Your task to perform on an android device: check the backup settings in the google photos Image 0: 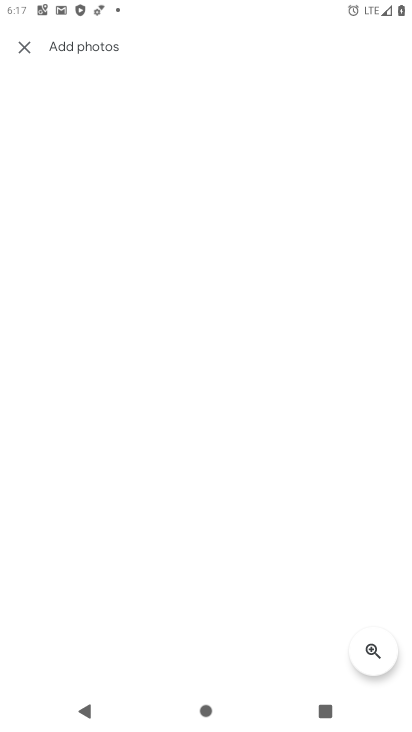
Step 0: press home button
Your task to perform on an android device: check the backup settings in the google photos Image 1: 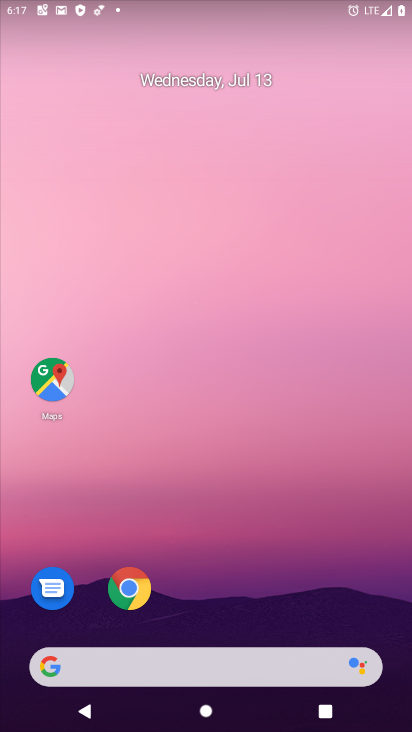
Step 1: drag from (214, 597) to (244, 92)
Your task to perform on an android device: check the backup settings in the google photos Image 2: 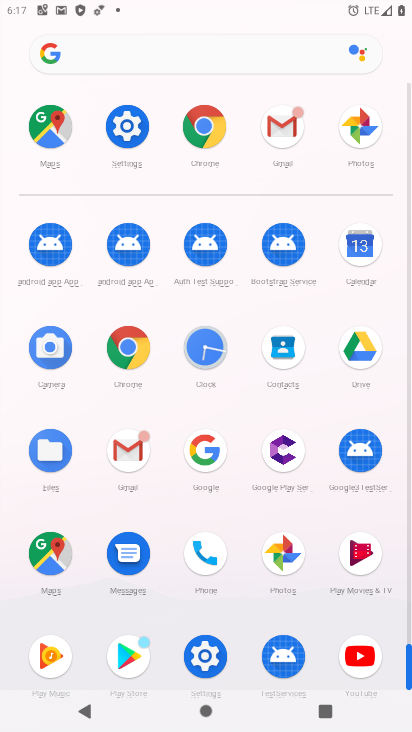
Step 2: click (352, 124)
Your task to perform on an android device: check the backup settings in the google photos Image 3: 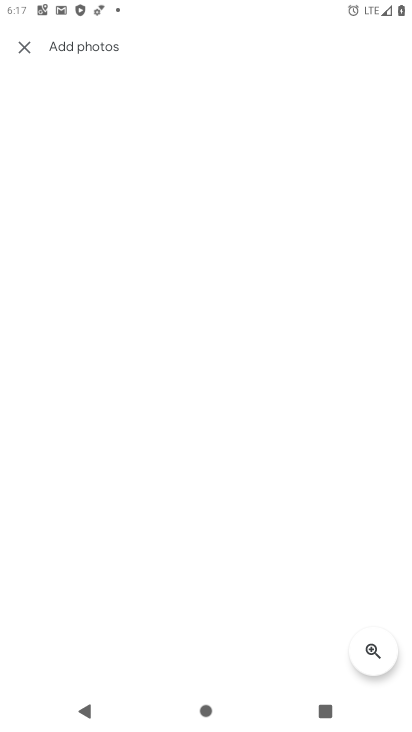
Step 3: click (22, 49)
Your task to perform on an android device: check the backup settings in the google photos Image 4: 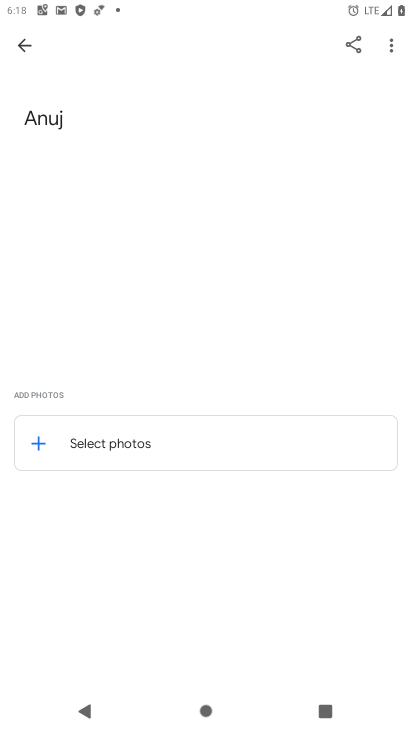
Step 4: click (22, 49)
Your task to perform on an android device: check the backup settings in the google photos Image 5: 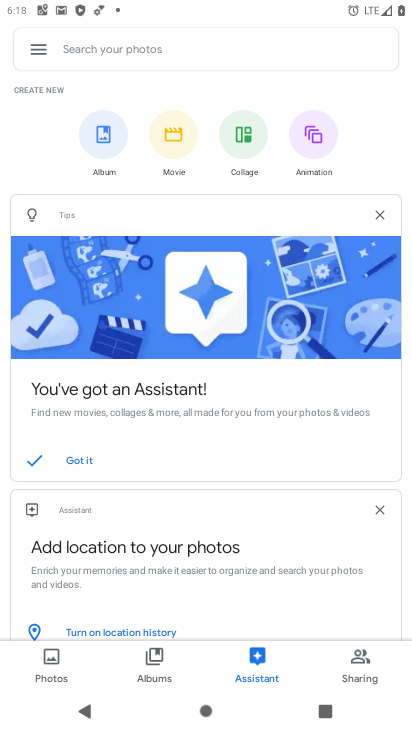
Step 5: click (41, 49)
Your task to perform on an android device: check the backup settings in the google photos Image 6: 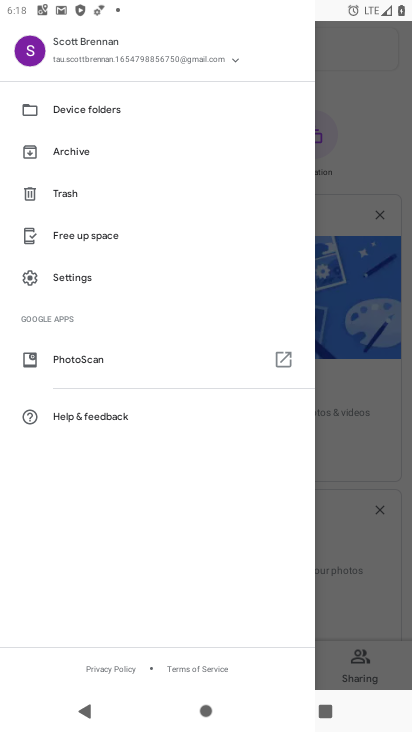
Step 6: click (74, 271)
Your task to perform on an android device: check the backup settings in the google photos Image 7: 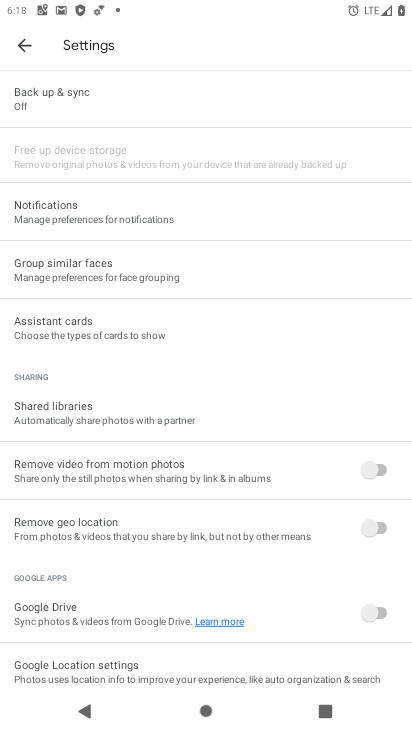
Step 7: click (79, 102)
Your task to perform on an android device: check the backup settings in the google photos Image 8: 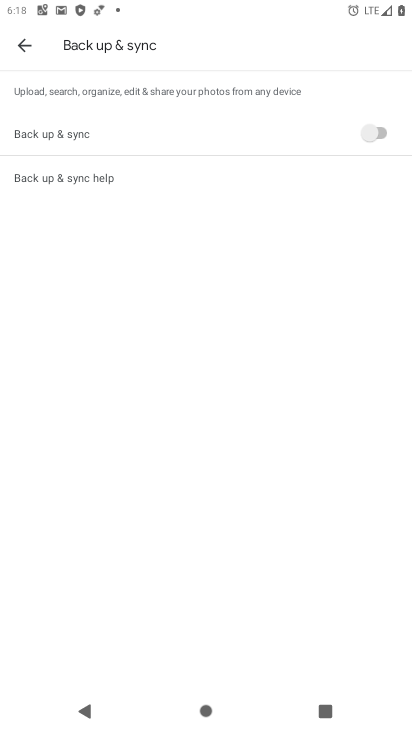
Step 8: task complete